Your task to perform on an android device: Turn on the flashlight Image 0: 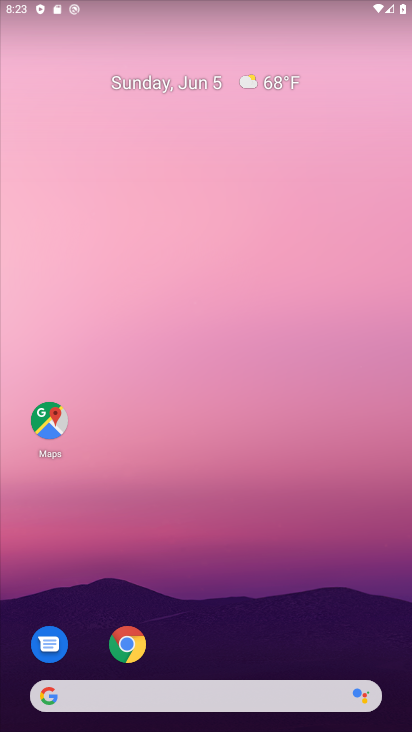
Step 0: task complete